Your task to perform on an android device: toggle priority inbox in the gmail app Image 0: 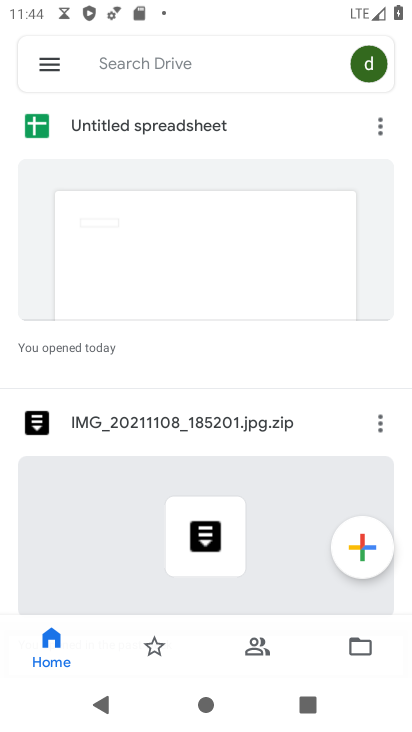
Step 0: press home button
Your task to perform on an android device: toggle priority inbox in the gmail app Image 1: 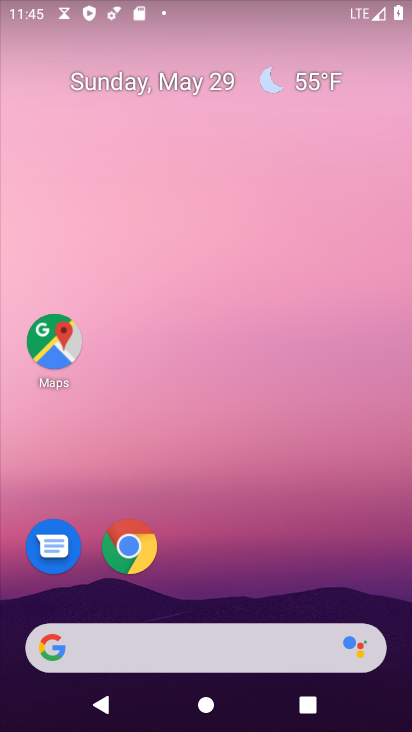
Step 1: drag from (151, 644) to (272, 20)
Your task to perform on an android device: toggle priority inbox in the gmail app Image 2: 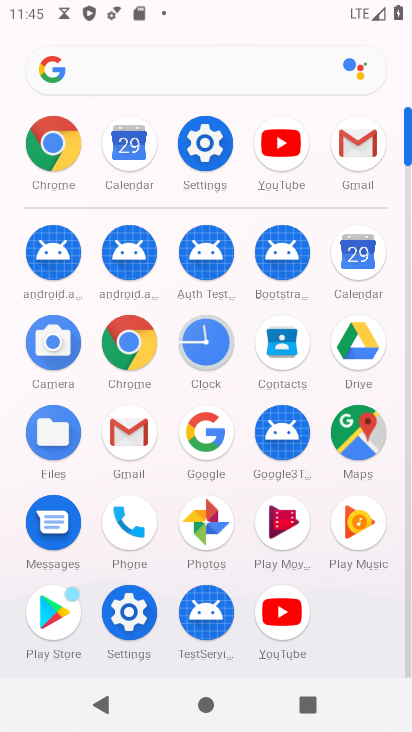
Step 2: click (362, 155)
Your task to perform on an android device: toggle priority inbox in the gmail app Image 3: 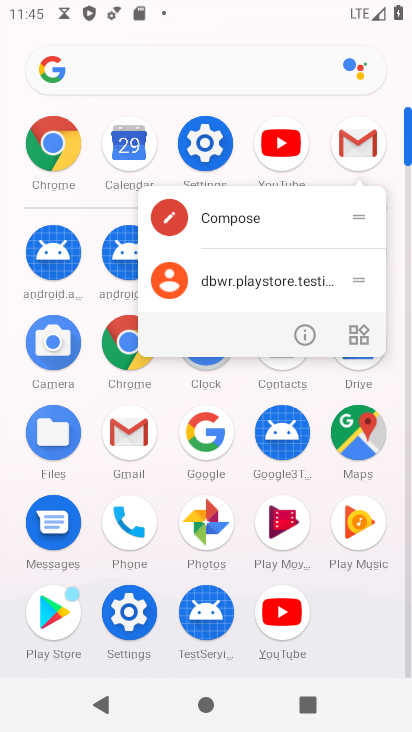
Step 3: click (358, 146)
Your task to perform on an android device: toggle priority inbox in the gmail app Image 4: 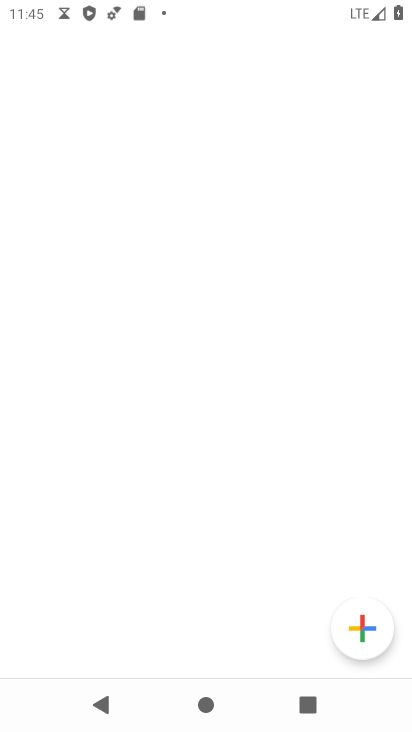
Step 4: click (356, 151)
Your task to perform on an android device: toggle priority inbox in the gmail app Image 5: 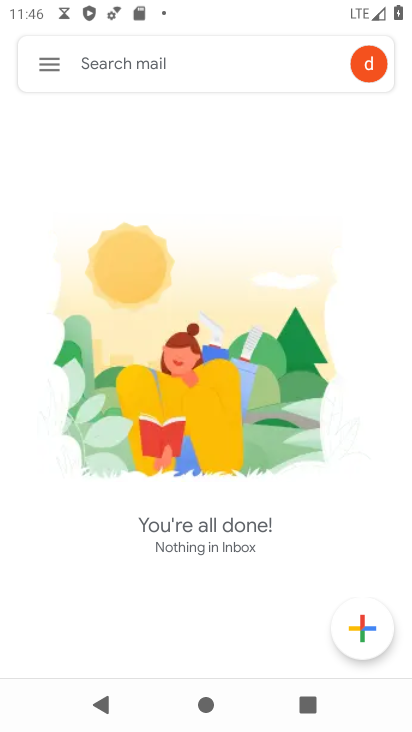
Step 5: click (38, 59)
Your task to perform on an android device: toggle priority inbox in the gmail app Image 6: 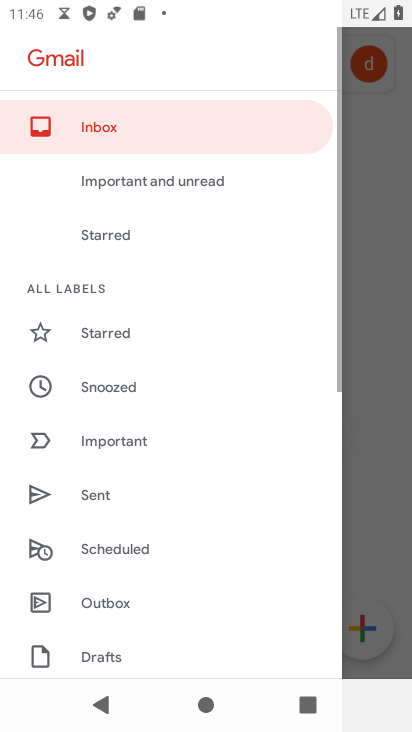
Step 6: drag from (150, 640) to (262, 35)
Your task to perform on an android device: toggle priority inbox in the gmail app Image 7: 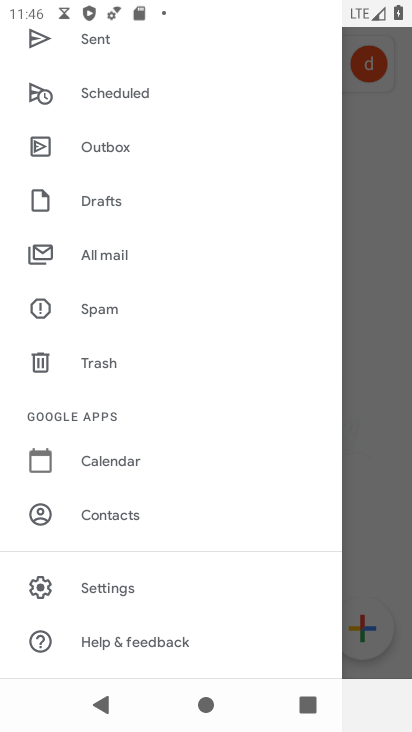
Step 7: click (144, 589)
Your task to perform on an android device: toggle priority inbox in the gmail app Image 8: 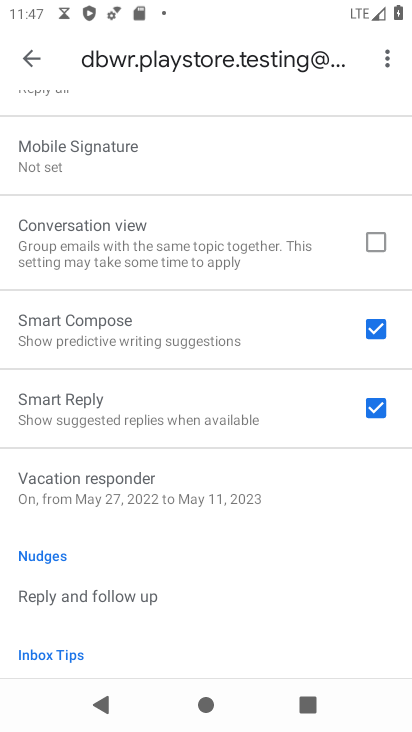
Step 8: drag from (254, 183) to (179, 691)
Your task to perform on an android device: toggle priority inbox in the gmail app Image 9: 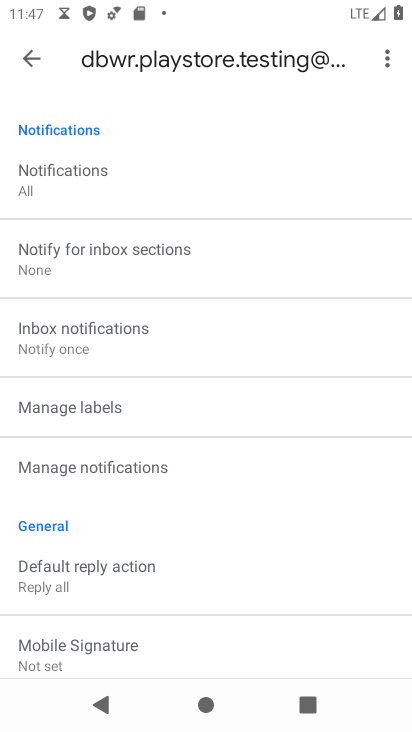
Step 9: drag from (236, 268) to (215, 595)
Your task to perform on an android device: toggle priority inbox in the gmail app Image 10: 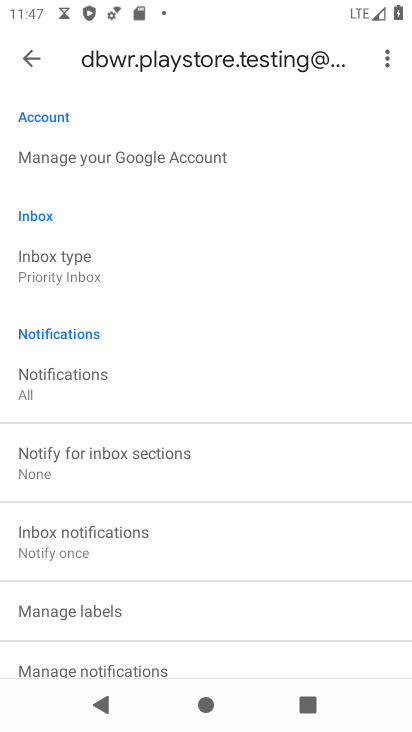
Step 10: click (89, 266)
Your task to perform on an android device: toggle priority inbox in the gmail app Image 11: 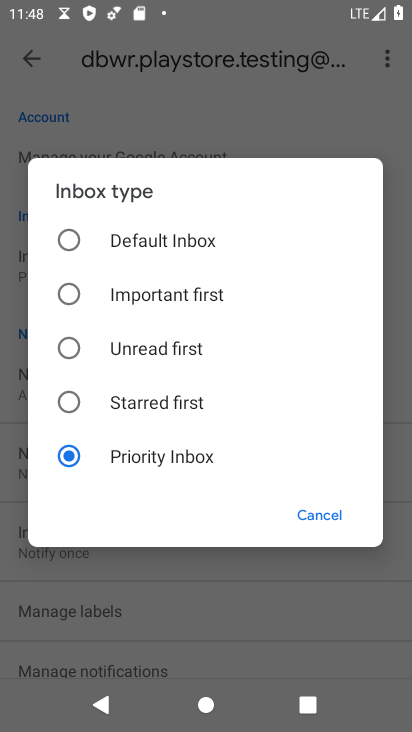
Step 11: click (71, 236)
Your task to perform on an android device: toggle priority inbox in the gmail app Image 12: 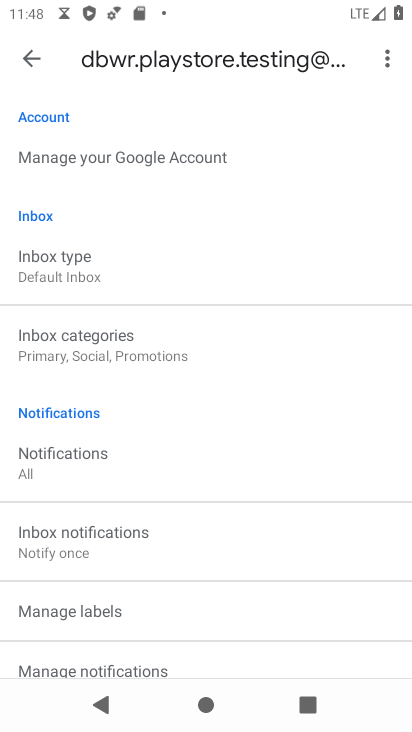
Step 12: task complete